Your task to perform on an android device: Open Google Image 0: 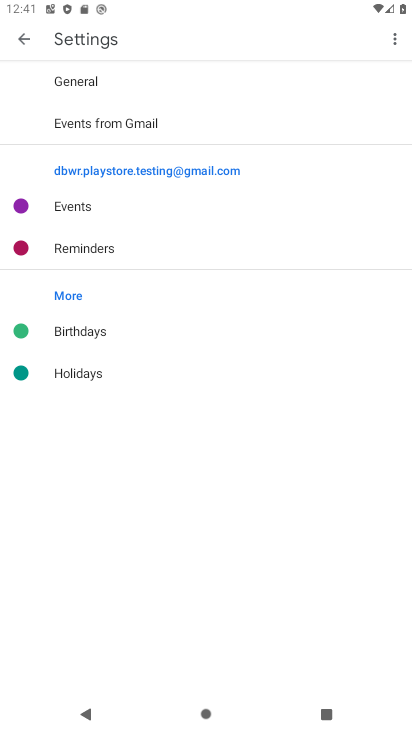
Step 0: press home button
Your task to perform on an android device: Open Google Image 1: 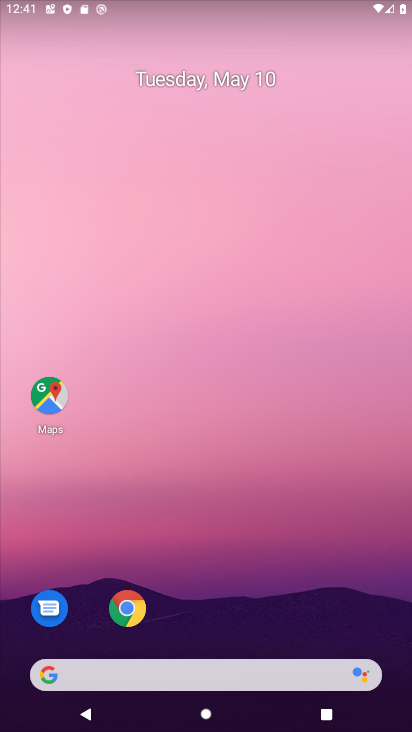
Step 1: drag from (300, 537) to (307, 32)
Your task to perform on an android device: Open Google Image 2: 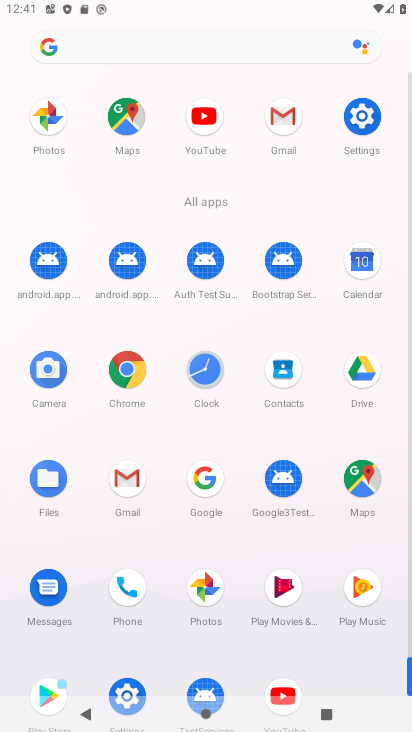
Step 2: click (197, 476)
Your task to perform on an android device: Open Google Image 3: 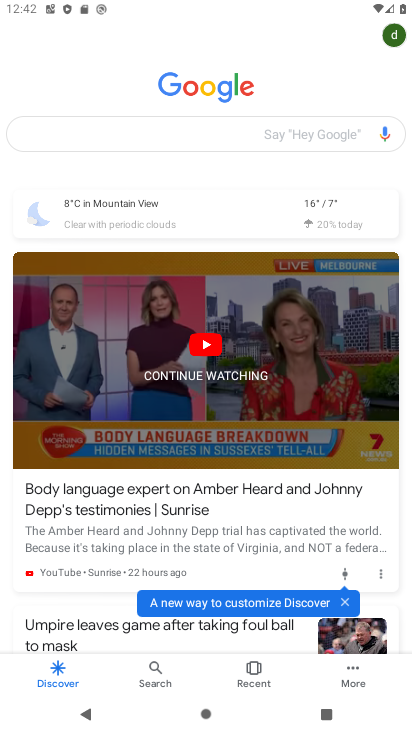
Step 3: task complete